Your task to perform on an android device: turn on wifi Image 0: 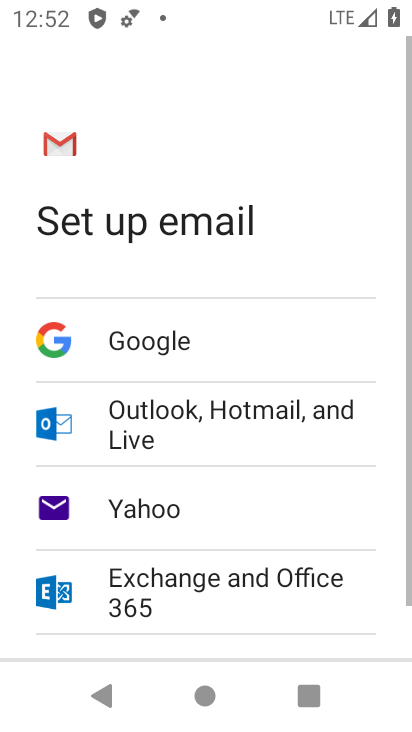
Step 0: press home button
Your task to perform on an android device: turn on wifi Image 1: 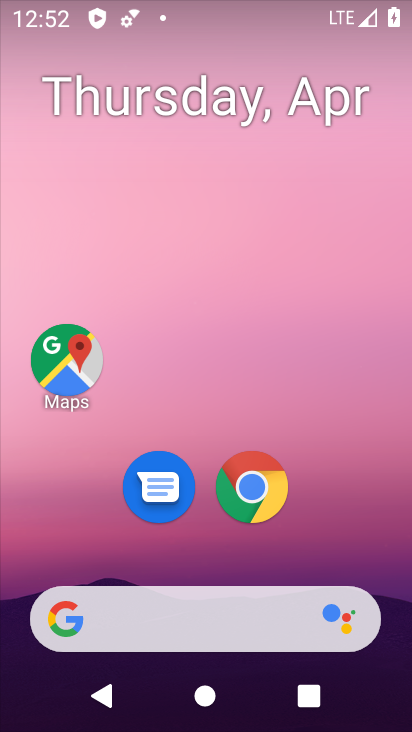
Step 1: drag from (391, 508) to (380, 122)
Your task to perform on an android device: turn on wifi Image 2: 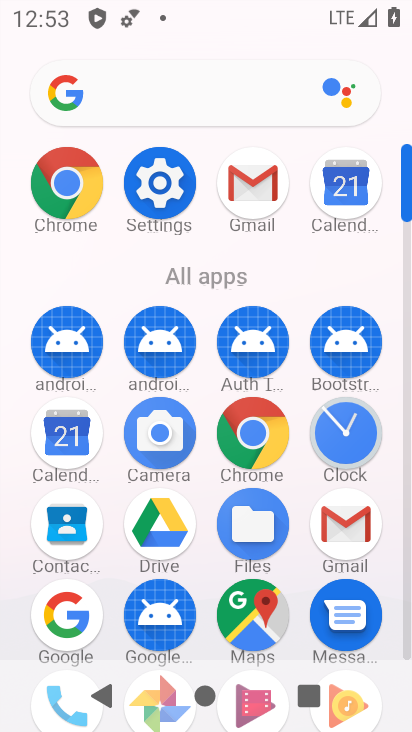
Step 2: click (162, 203)
Your task to perform on an android device: turn on wifi Image 3: 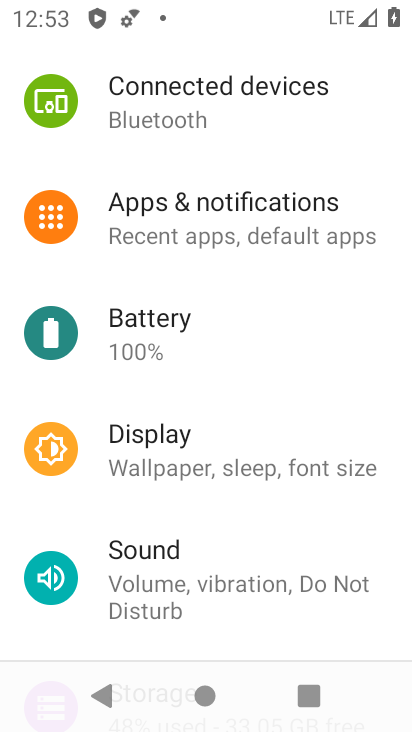
Step 3: drag from (256, 169) to (240, 516)
Your task to perform on an android device: turn on wifi Image 4: 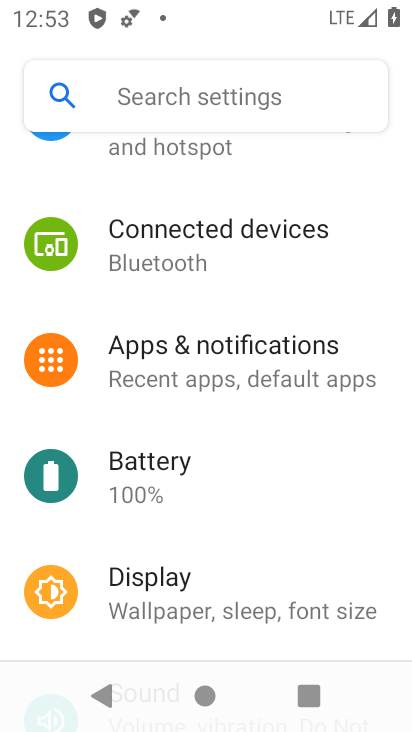
Step 4: drag from (222, 215) to (228, 478)
Your task to perform on an android device: turn on wifi Image 5: 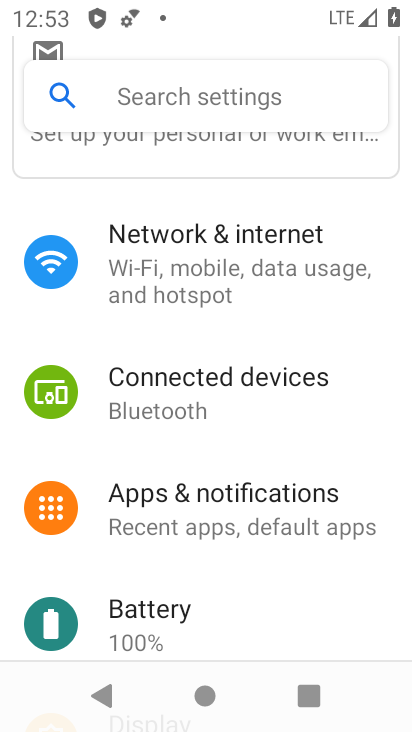
Step 5: click (242, 247)
Your task to perform on an android device: turn on wifi Image 6: 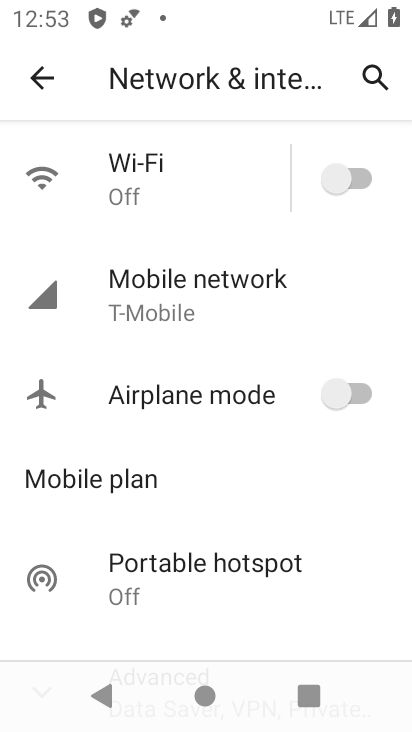
Step 6: drag from (237, 501) to (228, 293)
Your task to perform on an android device: turn on wifi Image 7: 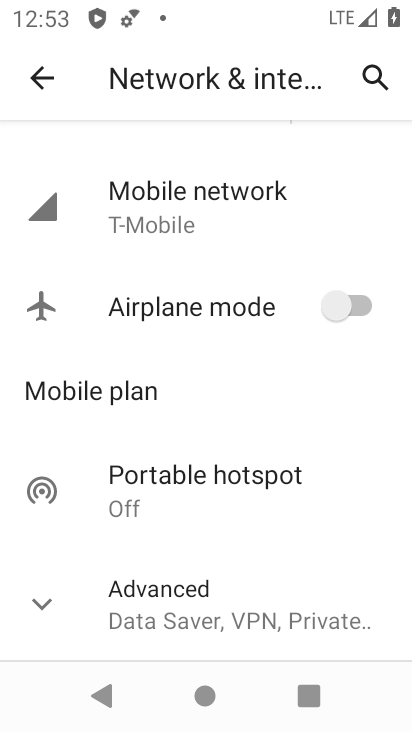
Step 7: drag from (269, 204) to (250, 454)
Your task to perform on an android device: turn on wifi Image 8: 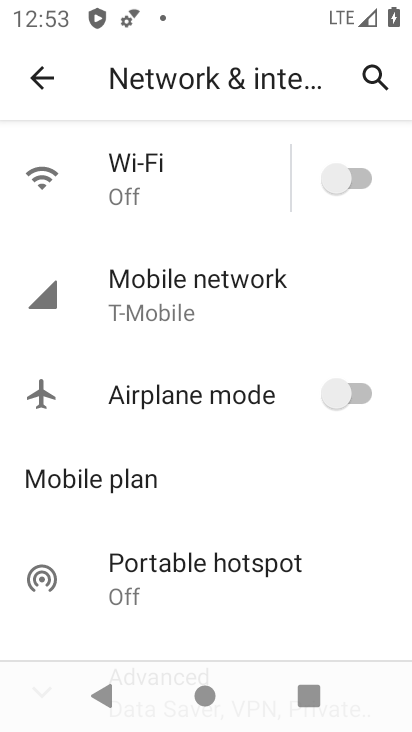
Step 8: click (355, 181)
Your task to perform on an android device: turn on wifi Image 9: 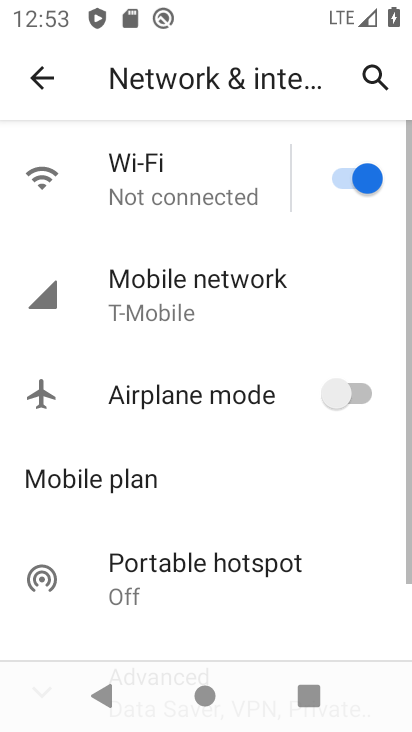
Step 9: task complete